Your task to perform on an android device: Open the phone app and click the voicemail tab. Image 0: 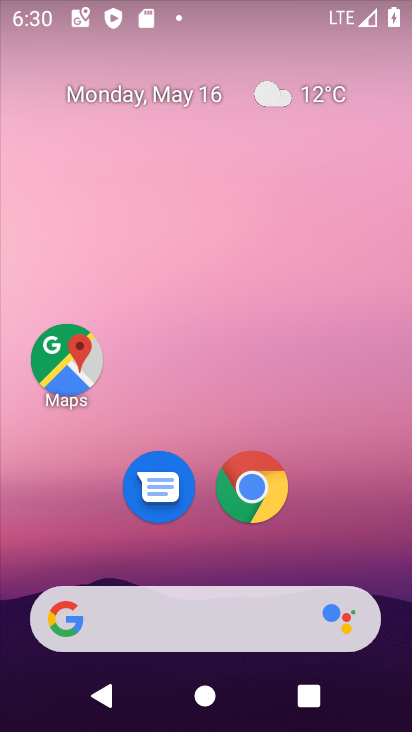
Step 0: drag from (366, 469) to (411, 66)
Your task to perform on an android device: Open the phone app and click the voicemail tab. Image 1: 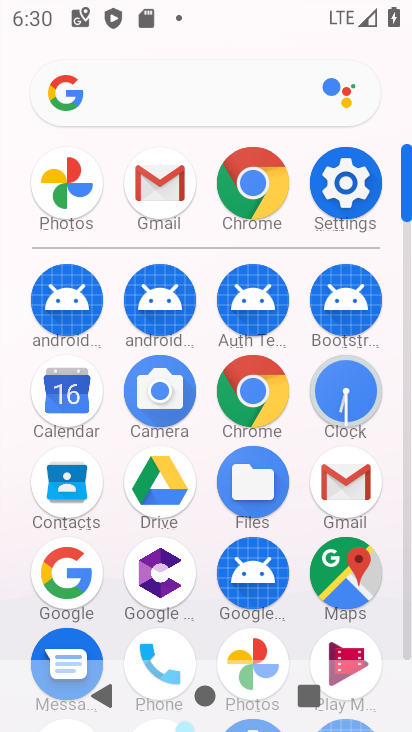
Step 1: click (162, 633)
Your task to perform on an android device: Open the phone app and click the voicemail tab. Image 2: 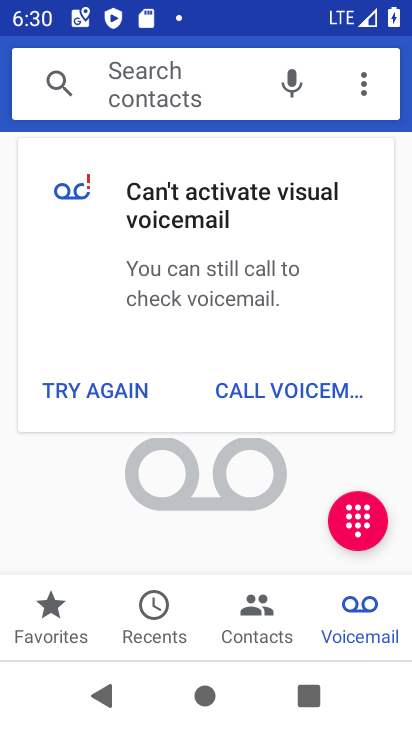
Step 2: task complete